Your task to perform on an android device: Go to calendar. Show me events next week Image 0: 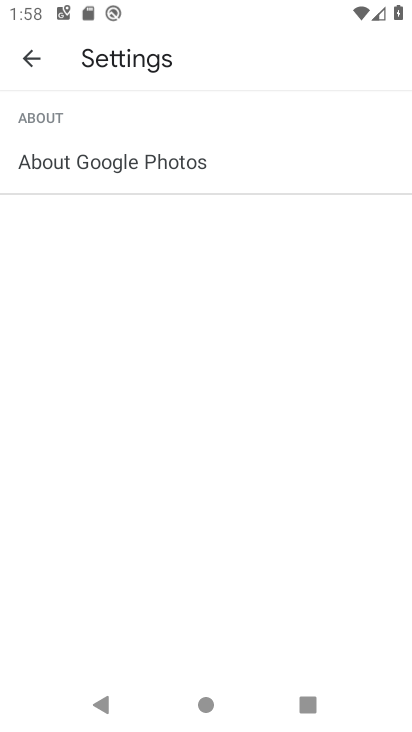
Step 0: press home button
Your task to perform on an android device: Go to calendar. Show me events next week Image 1: 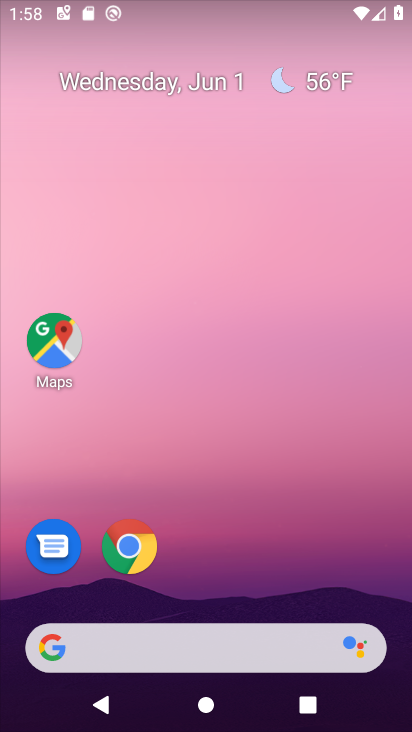
Step 1: drag from (142, 723) to (166, 49)
Your task to perform on an android device: Go to calendar. Show me events next week Image 2: 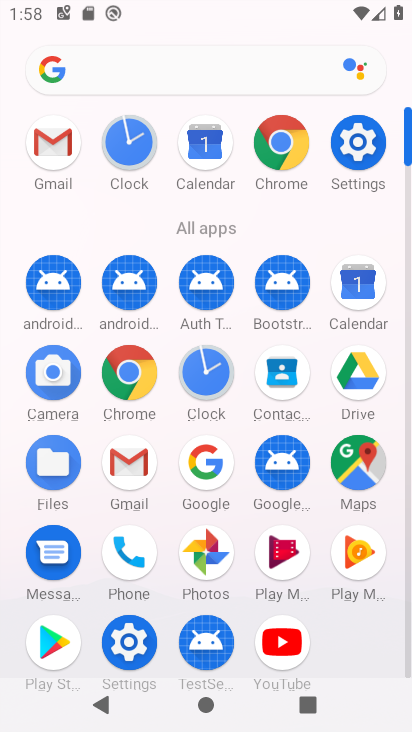
Step 2: click (351, 293)
Your task to perform on an android device: Go to calendar. Show me events next week Image 3: 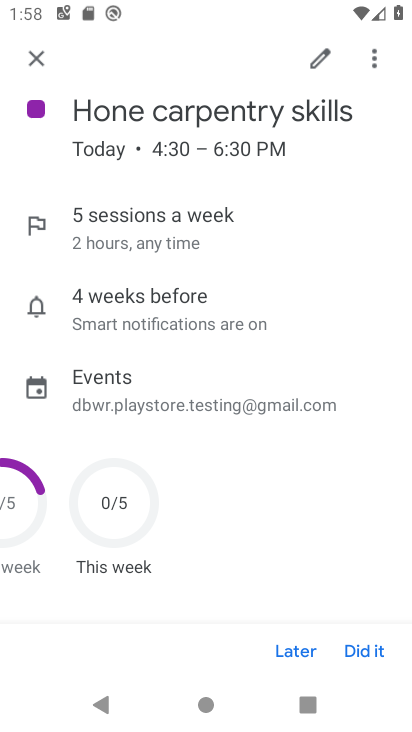
Step 3: click (41, 51)
Your task to perform on an android device: Go to calendar. Show me events next week Image 4: 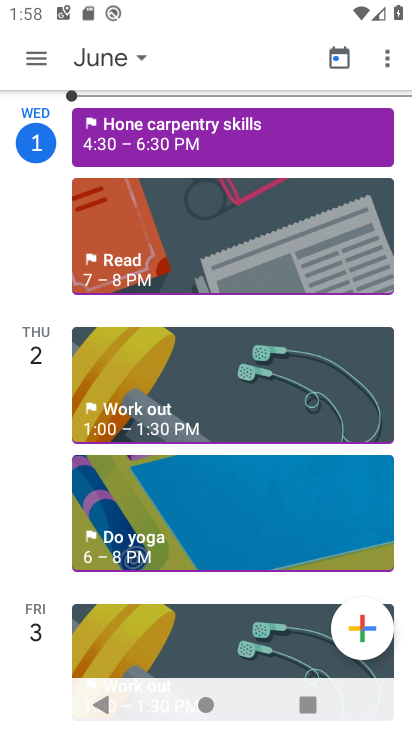
Step 4: click (42, 55)
Your task to perform on an android device: Go to calendar. Show me events next week Image 5: 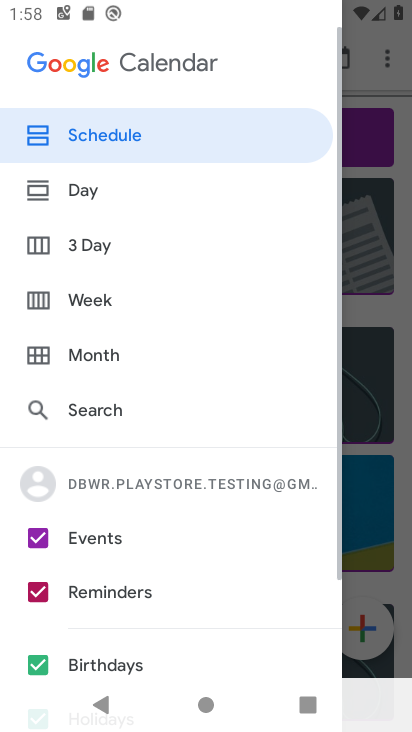
Step 5: click (109, 298)
Your task to perform on an android device: Go to calendar. Show me events next week Image 6: 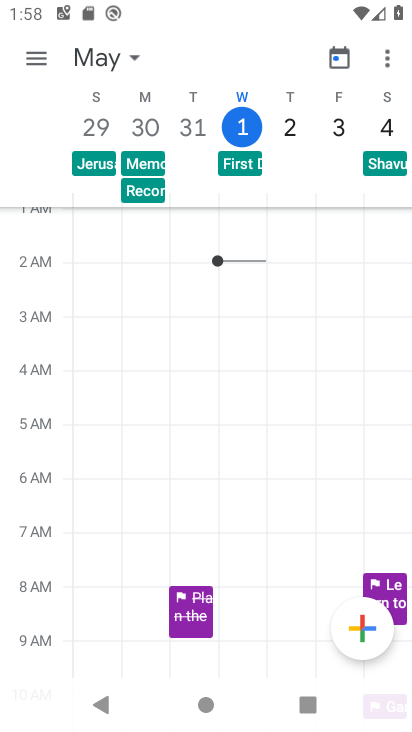
Step 6: drag from (380, 292) to (2, 244)
Your task to perform on an android device: Go to calendar. Show me events next week Image 7: 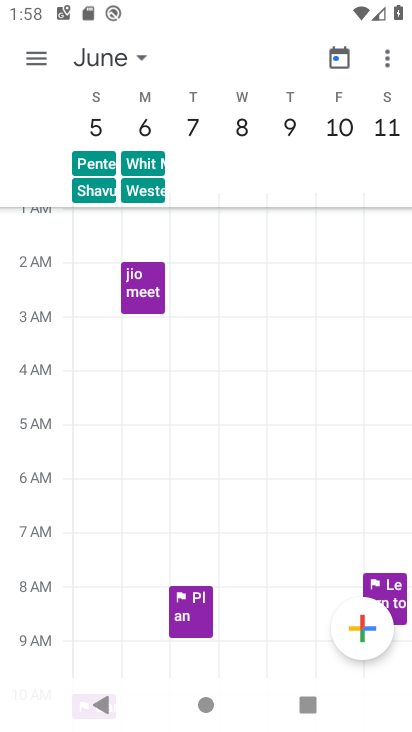
Step 7: click (42, 47)
Your task to perform on an android device: Go to calendar. Show me events next week Image 8: 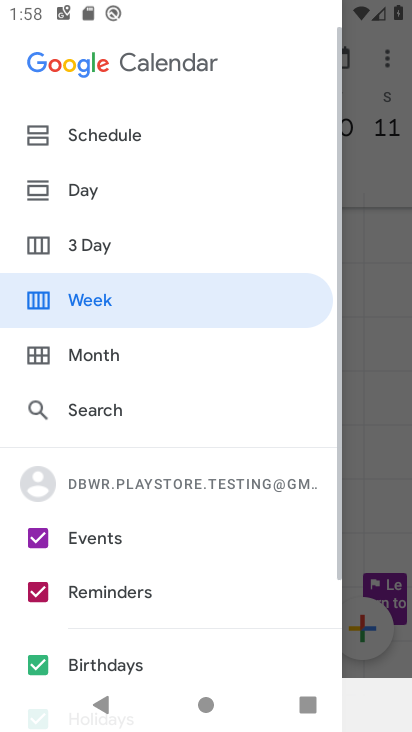
Step 8: click (27, 596)
Your task to perform on an android device: Go to calendar. Show me events next week Image 9: 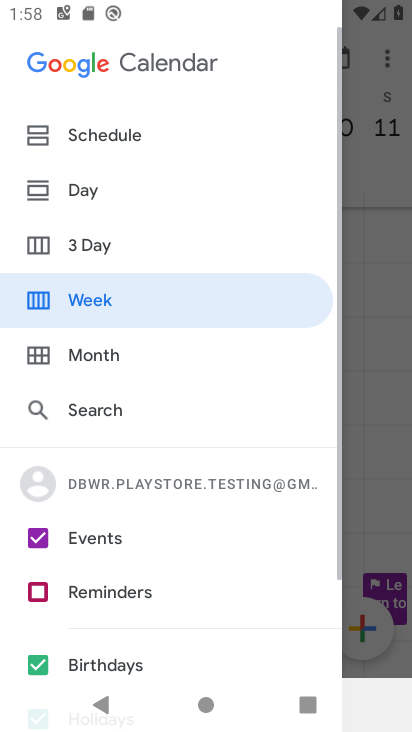
Step 9: click (38, 663)
Your task to perform on an android device: Go to calendar. Show me events next week Image 10: 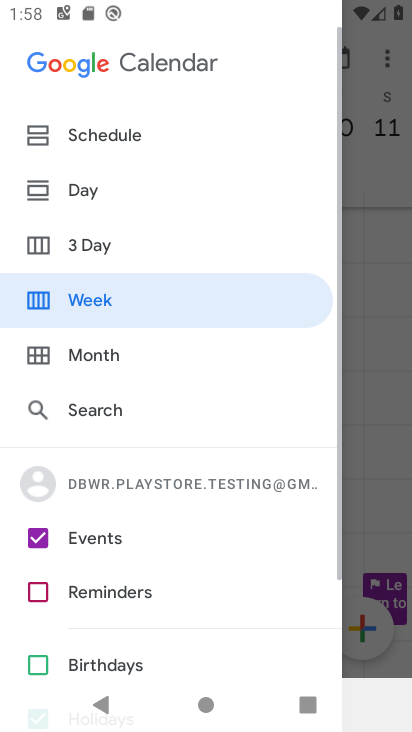
Step 10: drag from (197, 623) to (196, 305)
Your task to perform on an android device: Go to calendar. Show me events next week Image 11: 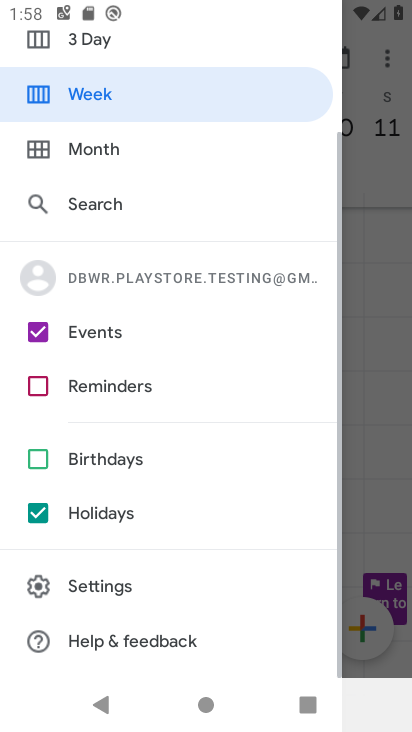
Step 11: click (44, 515)
Your task to perform on an android device: Go to calendar. Show me events next week Image 12: 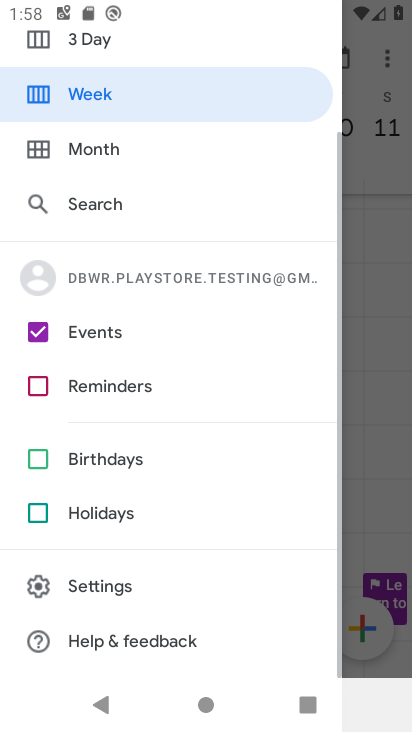
Step 12: click (380, 209)
Your task to perform on an android device: Go to calendar. Show me events next week Image 13: 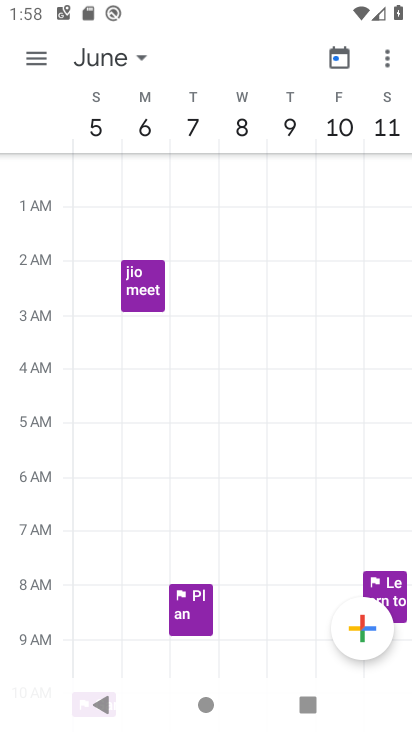
Step 13: task complete